Your task to perform on an android device: Open network settings Image 0: 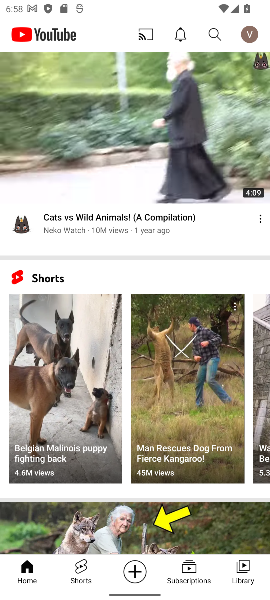
Step 0: press home button
Your task to perform on an android device: Open network settings Image 1: 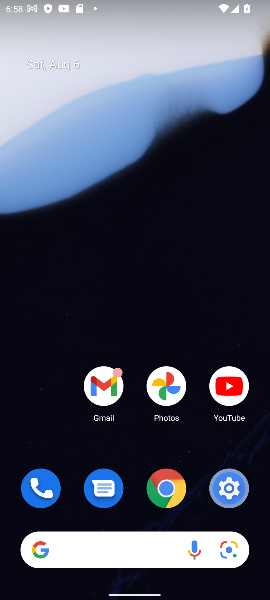
Step 1: drag from (120, 451) to (62, 235)
Your task to perform on an android device: Open network settings Image 2: 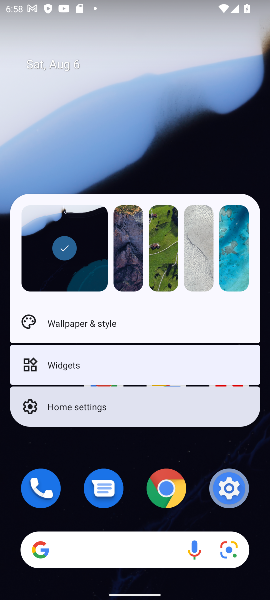
Step 2: drag from (127, 514) to (9, 175)
Your task to perform on an android device: Open network settings Image 3: 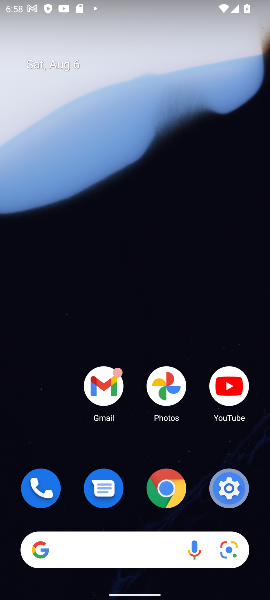
Step 3: drag from (132, 511) to (38, 202)
Your task to perform on an android device: Open network settings Image 4: 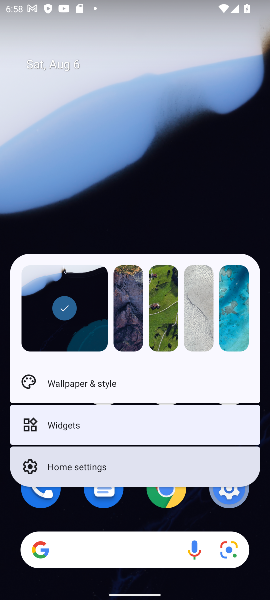
Step 4: drag from (125, 584) to (61, 186)
Your task to perform on an android device: Open network settings Image 5: 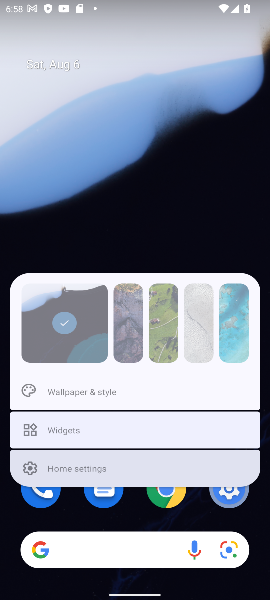
Step 5: click (68, 173)
Your task to perform on an android device: Open network settings Image 6: 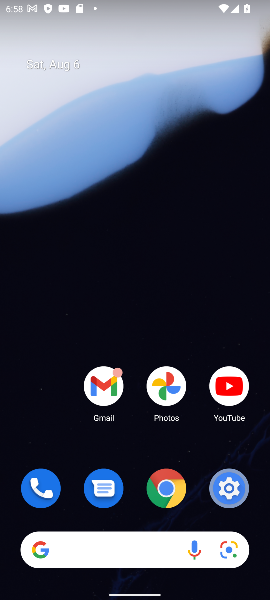
Step 6: drag from (142, 591) to (83, 239)
Your task to perform on an android device: Open network settings Image 7: 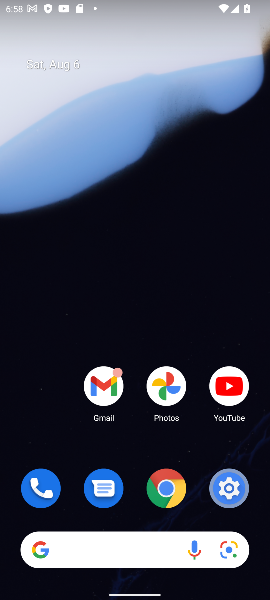
Step 7: drag from (119, 584) to (48, 36)
Your task to perform on an android device: Open network settings Image 8: 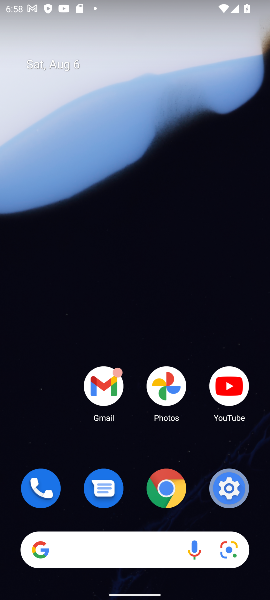
Step 8: drag from (145, 353) to (54, 39)
Your task to perform on an android device: Open network settings Image 9: 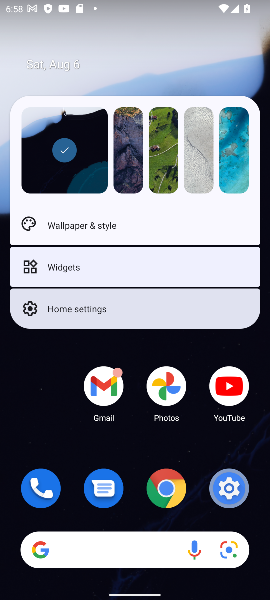
Step 9: click (62, 430)
Your task to perform on an android device: Open network settings Image 10: 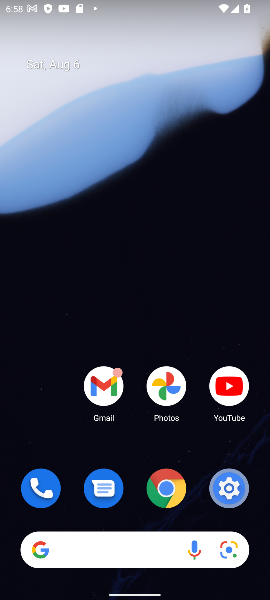
Step 10: drag from (129, 524) to (131, 64)
Your task to perform on an android device: Open network settings Image 11: 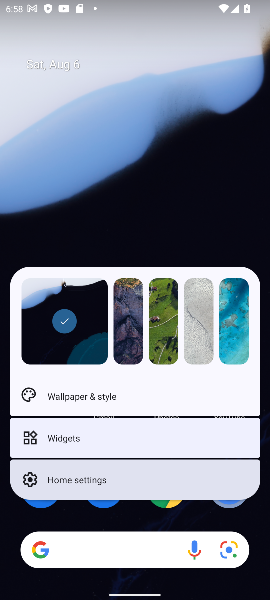
Step 11: click (102, 82)
Your task to perform on an android device: Open network settings Image 12: 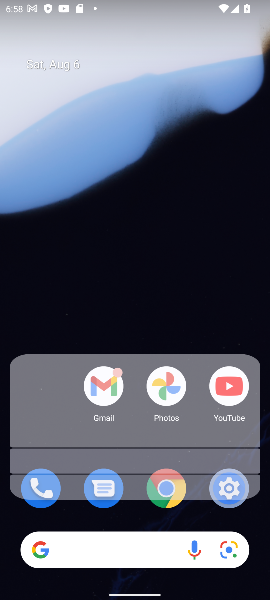
Step 12: click (102, 81)
Your task to perform on an android device: Open network settings Image 13: 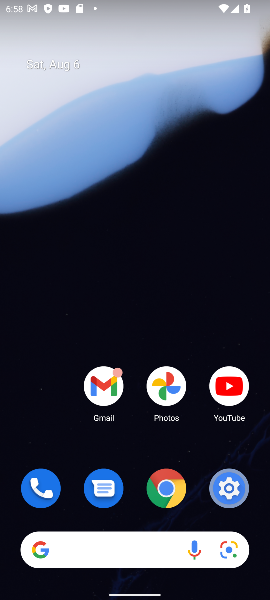
Step 13: drag from (139, 589) to (137, 53)
Your task to perform on an android device: Open network settings Image 14: 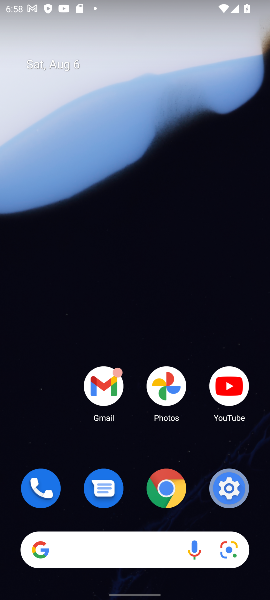
Step 14: click (101, 221)
Your task to perform on an android device: Open network settings Image 15: 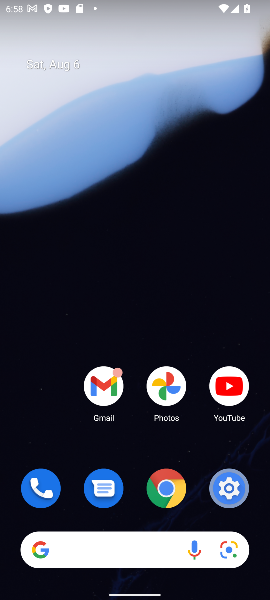
Step 15: drag from (123, 589) to (53, 106)
Your task to perform on an android device: Open network settings Image 16: 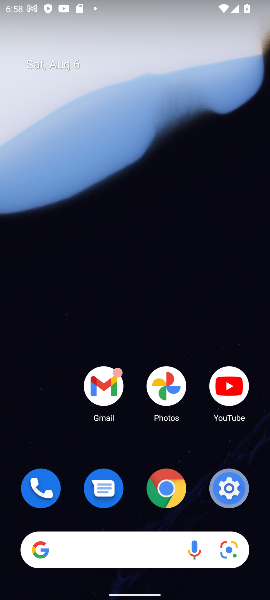
Step 16: drag from (132, 593) to (117, 55)
Your task to perform on an android device: Open network settings Image 17: 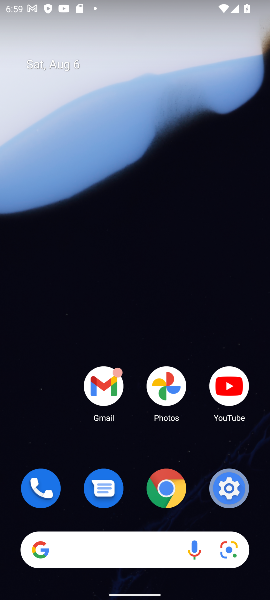
Step 17: click (114, 199)
Your task to perform on an android device: Open network settings Image 18: 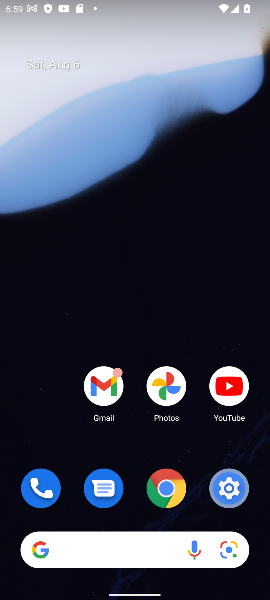
Step 18: drag from (135, 516) to (135, 117)
Your task to perform on an android device: Open network settings Image 19: 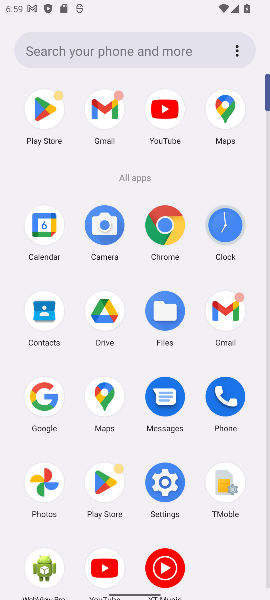
Step 19: click (164, 481)
Your task to perform on an android device: Open network settings Image 20: 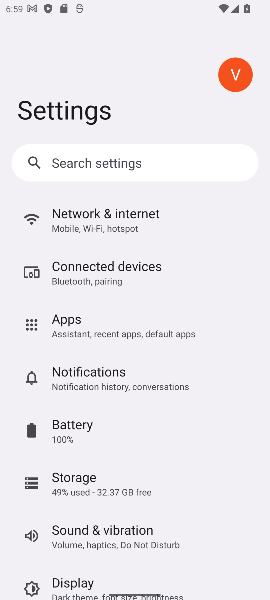
Step 20: click (122, 221)
Your task to perform on an android device: Open network settings Image 21: 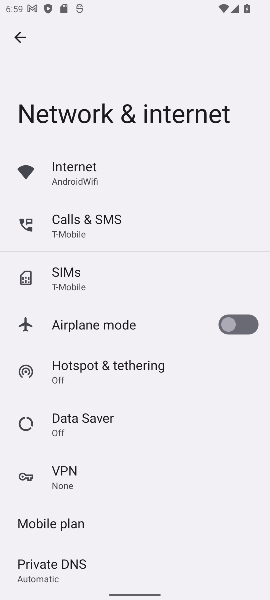
Step 21: task complete